Your task to perform on an android device: Play the last video I watched on Youtube Image 0: 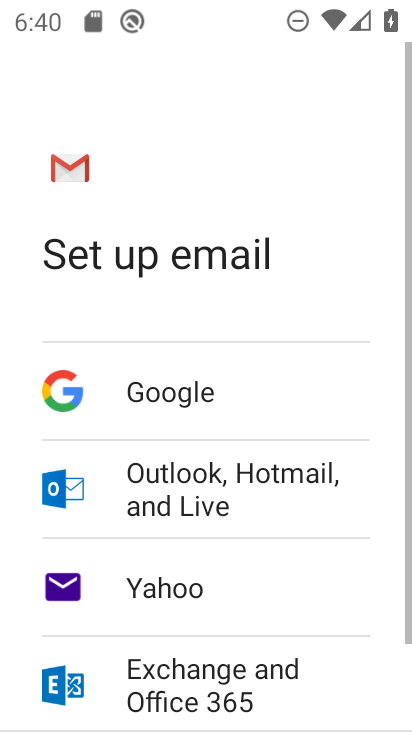
Step 0: press home button
Your task to perform on an android device: Play the last video I watched on Youtube Image 1: 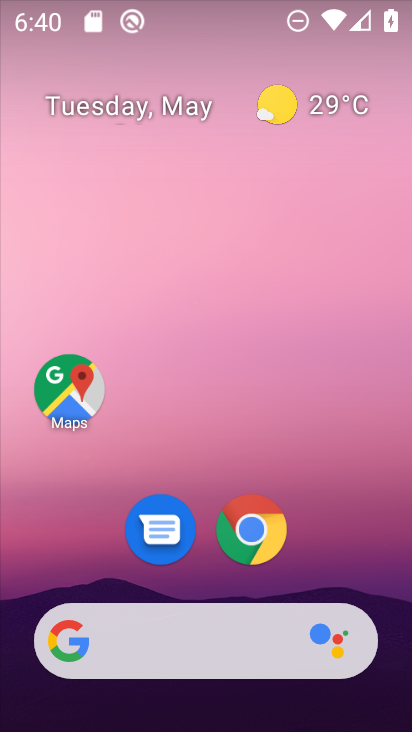
Step 1: drag from (402, 597) to (319, 0)
Your task to perform on an android device: Play the last video I watched on Youtube Image 2: 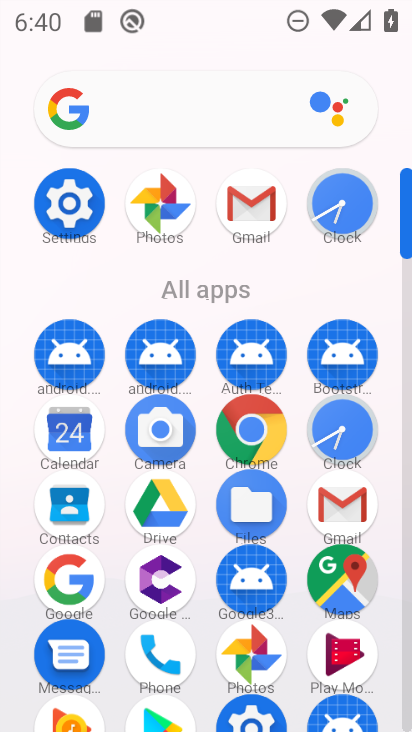
Step 2: drag from (304, 663) to (333, 157)
Your task to perform on an android device: Play the last video I watched on Youtube Image 3: 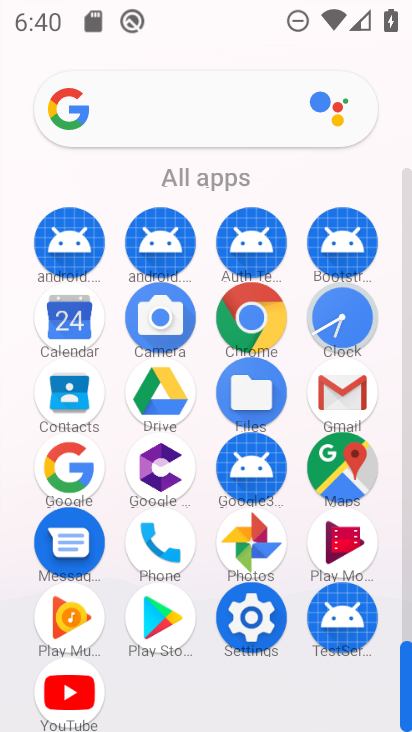
Step 3: click (74, 691)
Your task to perform on an android device: Play the last video I watched on Youtube Image 4: 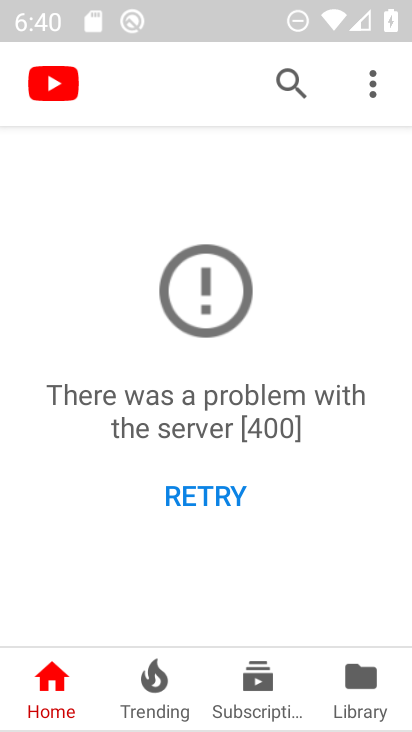
Step 4: click (234, 478)
Your task to perform on an android device: Play the last video I watched on Youtube Image 5: 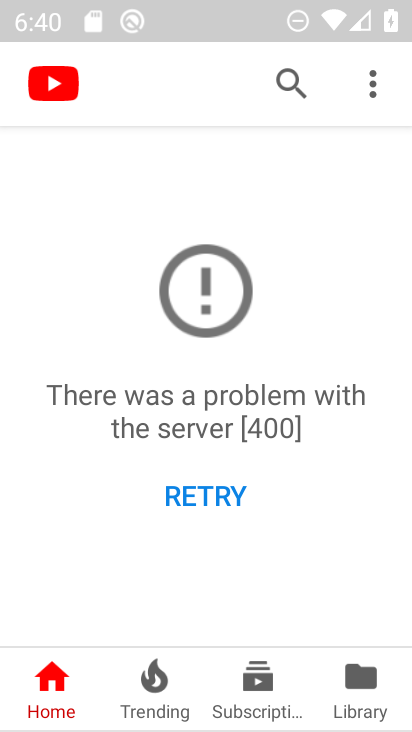
Step 5: task complete